Your task to perform on an android device: change notification settings in the gmail app Image 0: 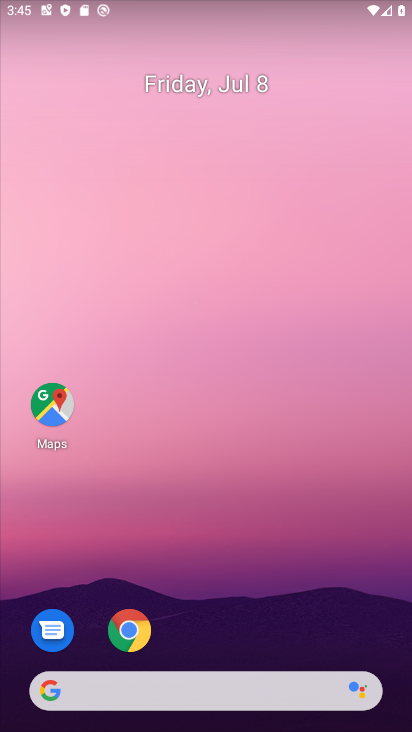
Step 0: drag from (207, 617) to (178, 396)
Your task to perform on an android device: change notification settings in the gmail app Image 1: 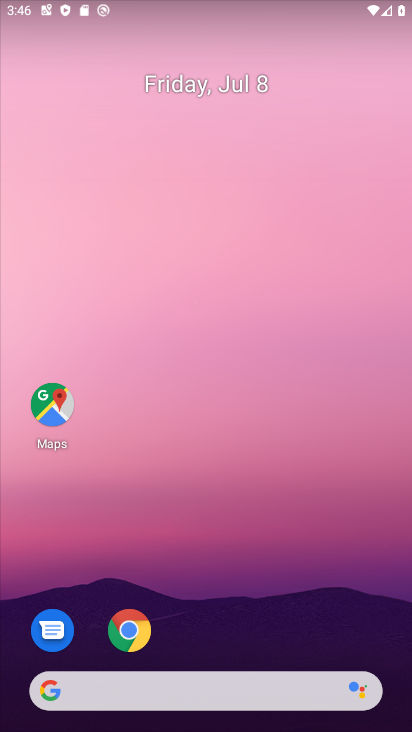
Step 1: click (230, 32)
Your task to perform on an android device: change notification settings in the gmail app Image 2: 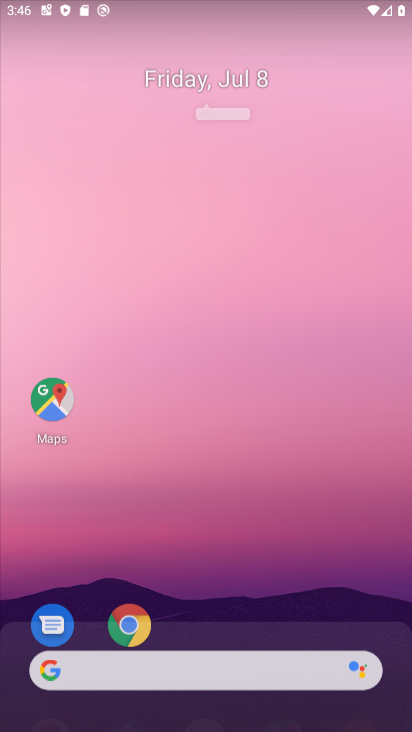
Step 2: click (219, 390)
Your task to perform on an android device: change notification settings in the gmail app Image 3: 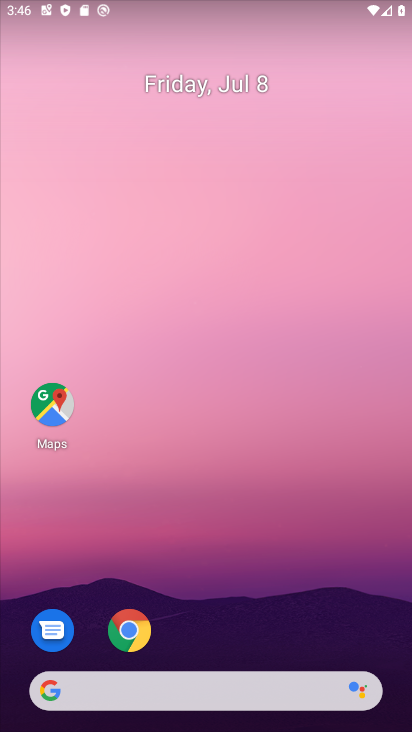
Step 3: drag from (247, 555) to (195, 12)
Your task to perform on an android device: change notification settings in the gmail app Image 4: 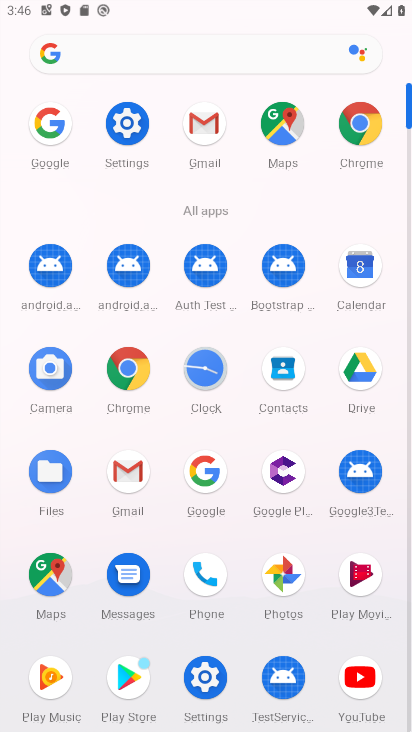
Step 4: click (206, 116)
Your task to perform on an android device: change notification settings in the gmail app Image 5: 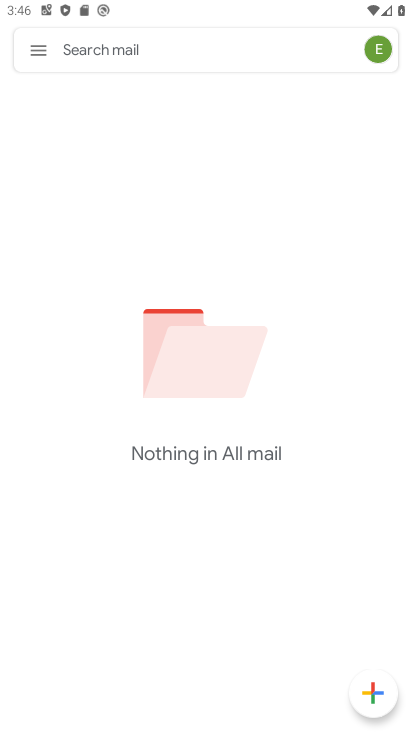
Step 5: click (37, 53)
Your task to perform on an android device: change notification settings in the gmail app Image 6: 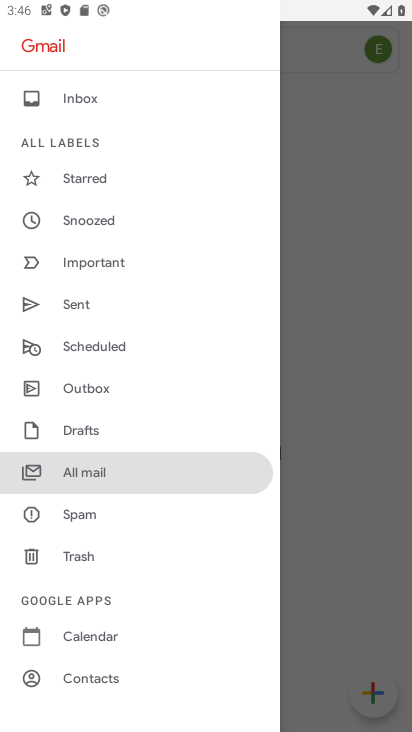
Step 6: drag from (91, 671) to (22, 171)
Your task to perform on an android device: change notification settings in the gmail app Image 7: 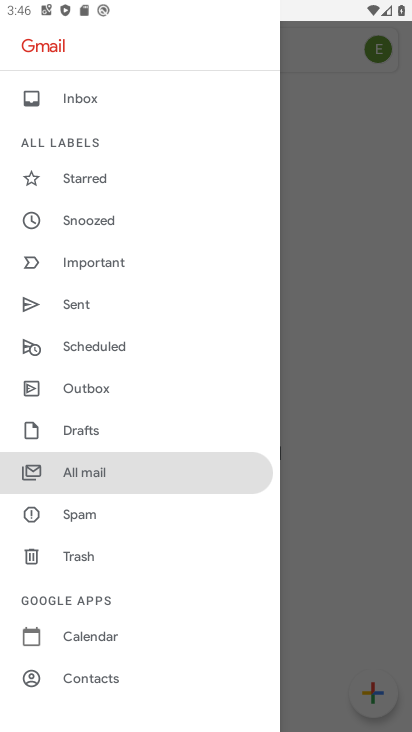
Step 7: drag from (53, 515) to (21, 261)
Your task to perform on an android device: change notification settings in the gmail app Image 8: 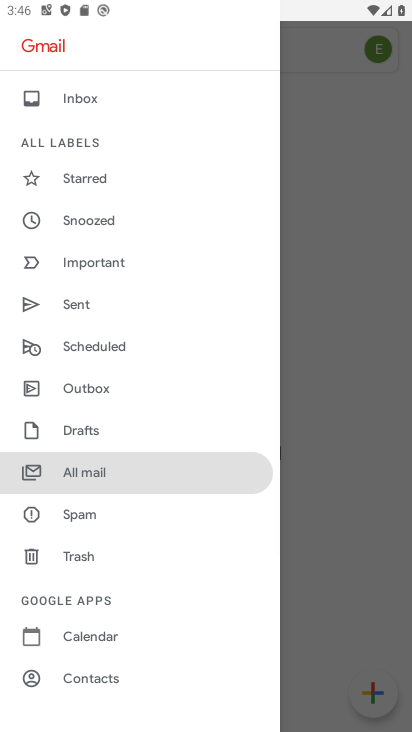
Step 8: drag from (109, 547) to (118, 231)
Your task to perform on an android device: change notification settings in the gmail app Image 9: 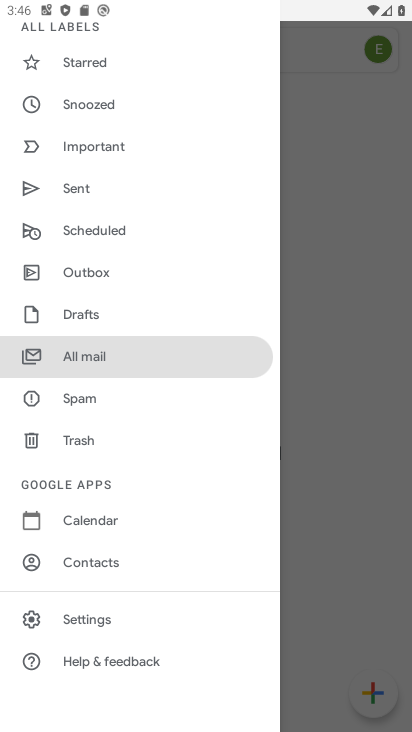
Step 9: click (99, 626)
Your task to perform on an android device: change notification settings in the gmail app Image 10: 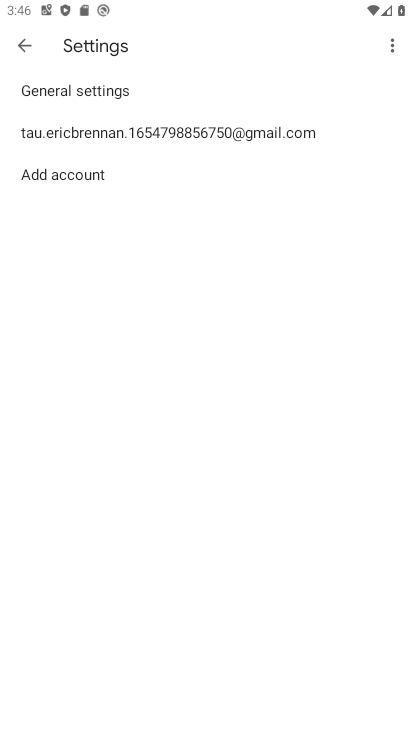
Step 10: click (99, 626)
Your task to perform on an android device: change notification settings in the gmail app Image 11: 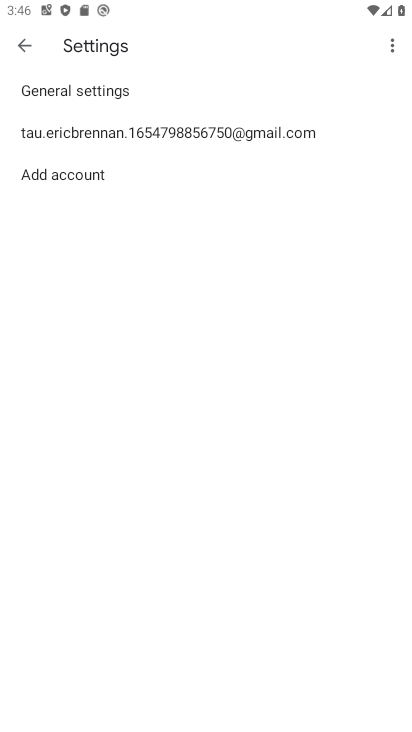
Step 11: click (99, 626)
Your task to perform on an android device: change notification settings in the gmail app Image 12: 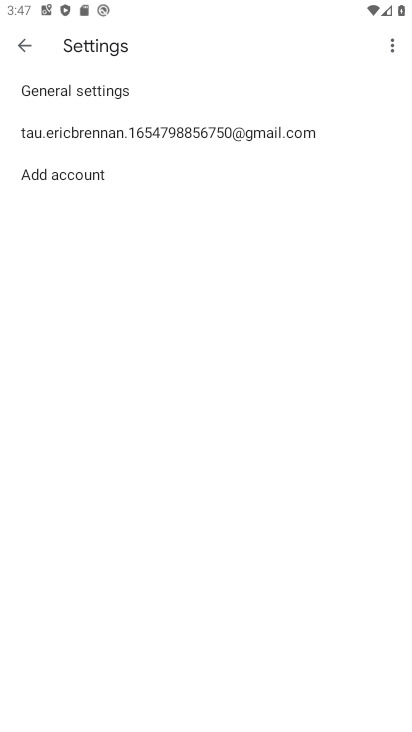
Step 12: click (110, 140)
Your task to perform on an android device: change notification settings in the gmail app Image 13: 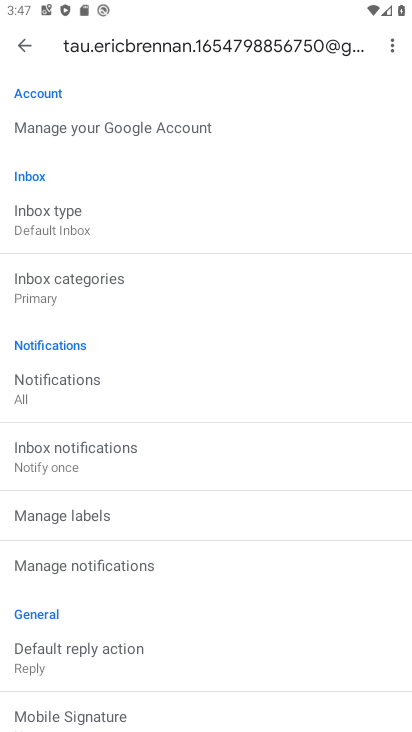
Step 13: click (68, 561)
Your task to perform on an android device: change notification settings in the gmail app Image 14: 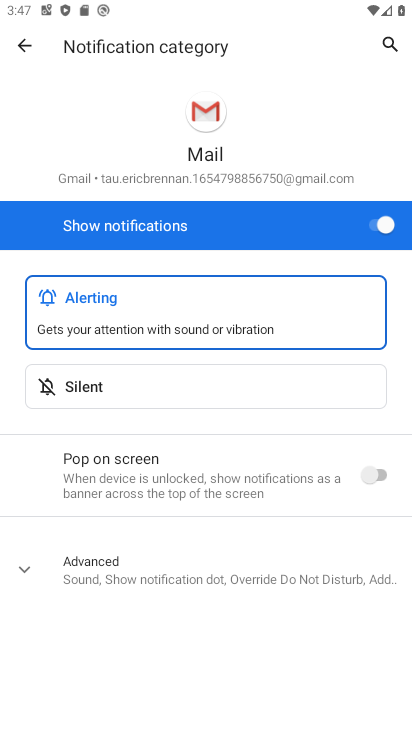
Step 14: click (375, 221)
Your task to perform on an android device: change notification settings in the gmail app Image 15: 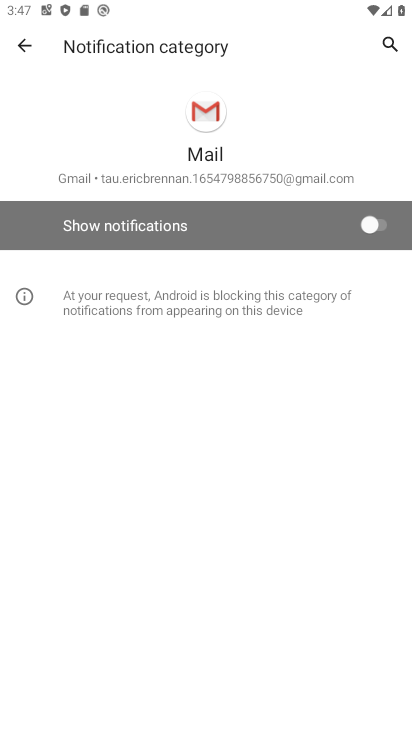
Step 15: task complete